Your task to perform on an android device: toggle notification dots Image 0: 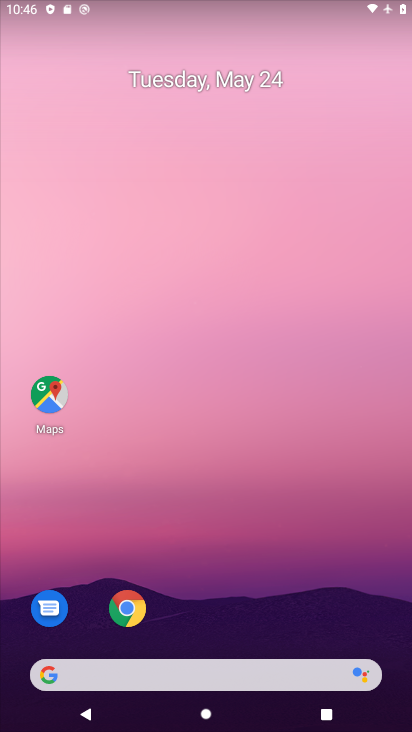
Step 0: drag from (373, 619) to (340, 117)
Your task to perform on an android device: toggle notification dots Image 1: 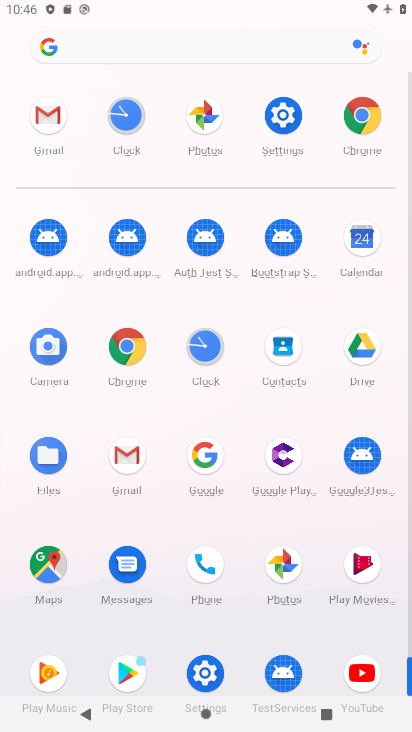
Step 1: click (411, 642)
Your task to perform on an android device: toggle notification dots Image 2: 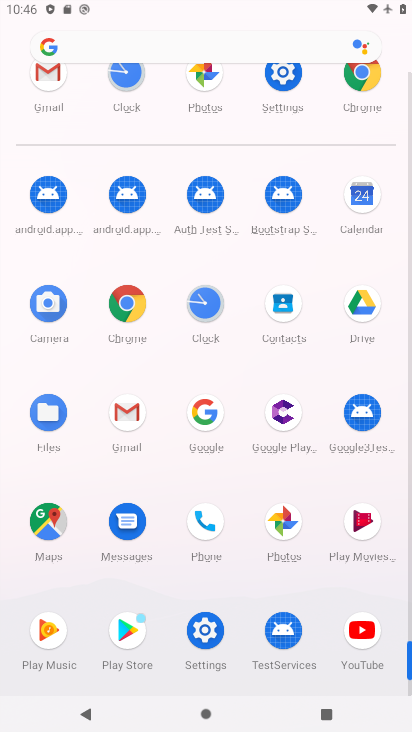
Step 2: click (204, 630)
Your task to perform on an android device: toggle notification dots Image 3: 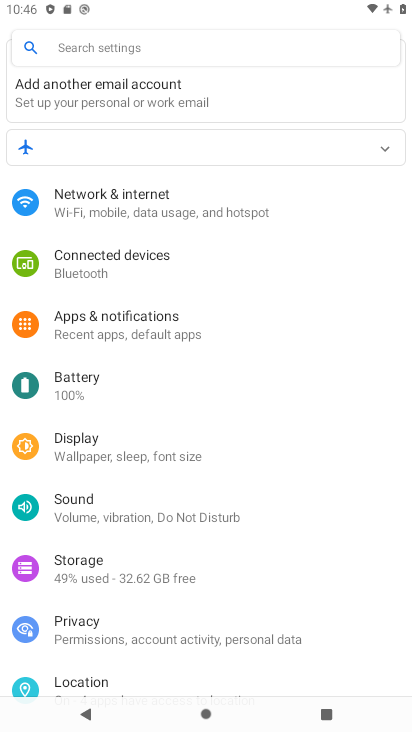
Step 3: click (110, 313)
Your task to perform on an android device: toggle notification dots Image 4: 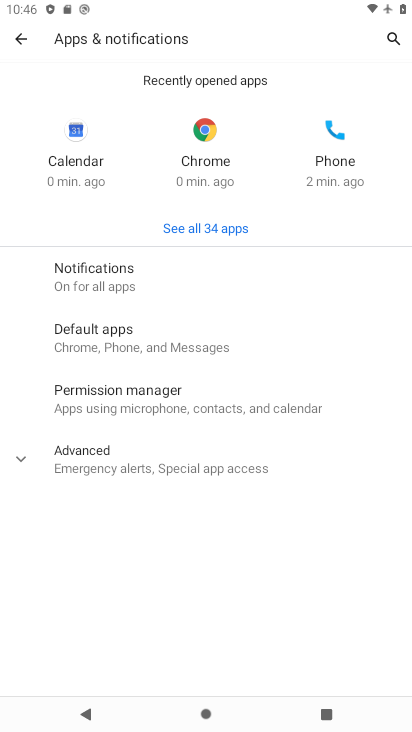
Step 4: click (87, 271)
Your task to perform on an android device: toggle notification dots Image 5: 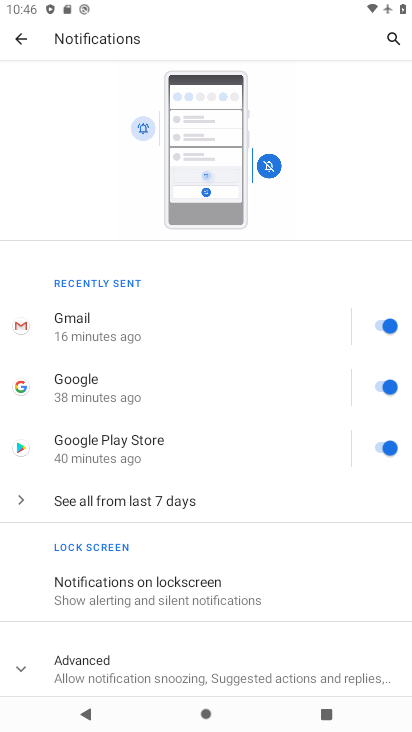
Step 5: drag from (250, 609) to (284, 207)
Your task to perform on an android device: toggle notification dots Image 6: 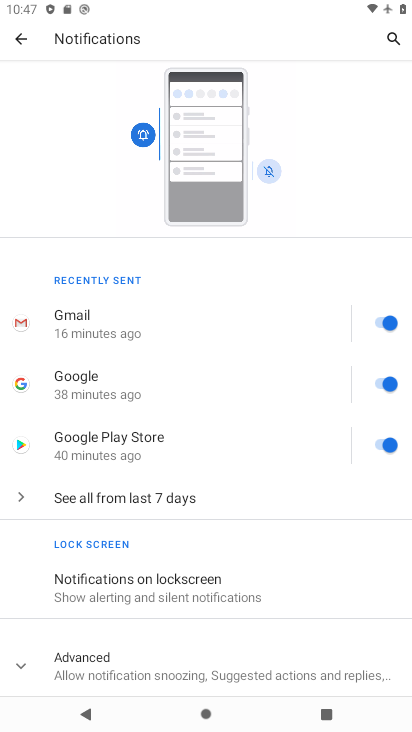
Step 6: click (22, 665)
Your task to perform on an android device: toggle notification dots Image 7: 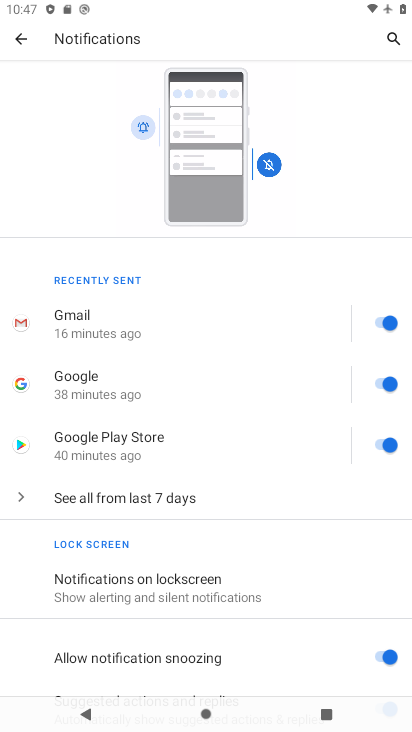
Step 7: drag from (251, 645) to (324, 240)
Your task to perform on an android device: toggle notification dots Image 8: 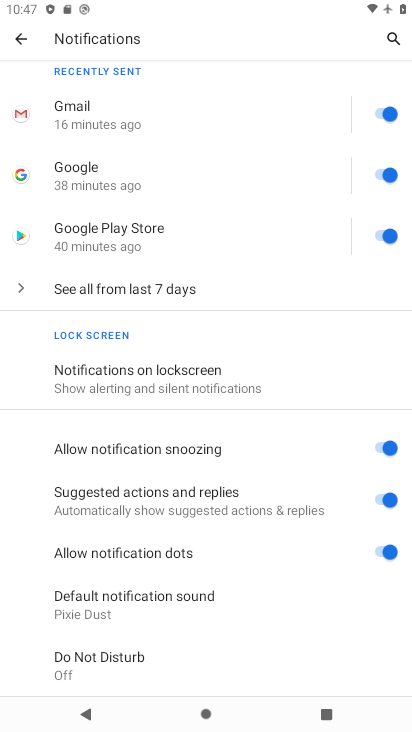
Step 8: click (376, 555)
Your task to perform on an android device: toggle notification dots Image 9: 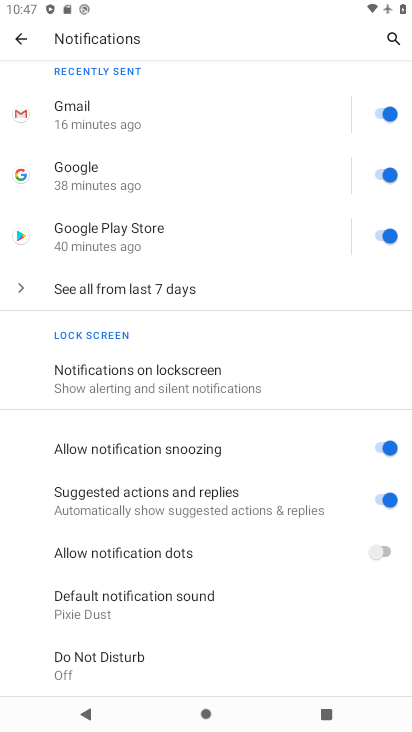
Step 9: task complete